Your task to perform on an android device: show emergency info Image 0: 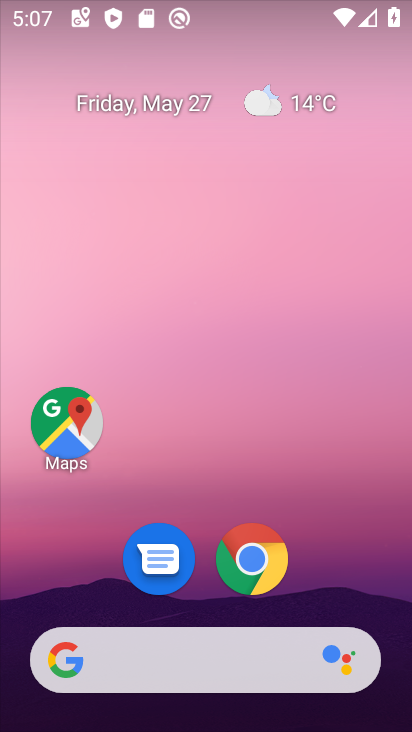
Step 0: drag from (226, 485) to (244, 114)
Your task to perform on an android device: show emergency info Image 1: 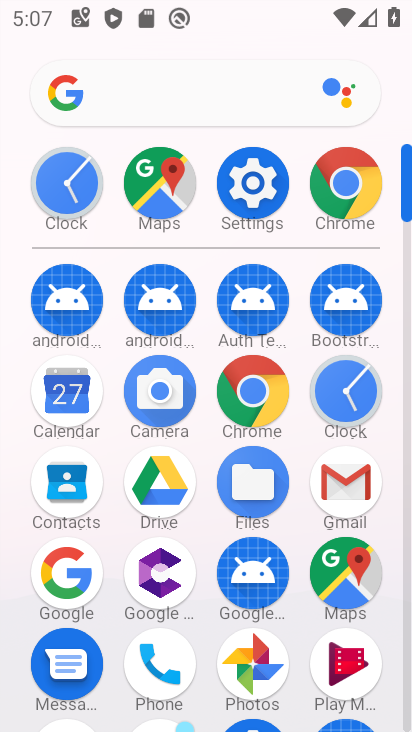
Step 1: click (257, 178)
Your task to perform on an android device: show emergency info Image 2: 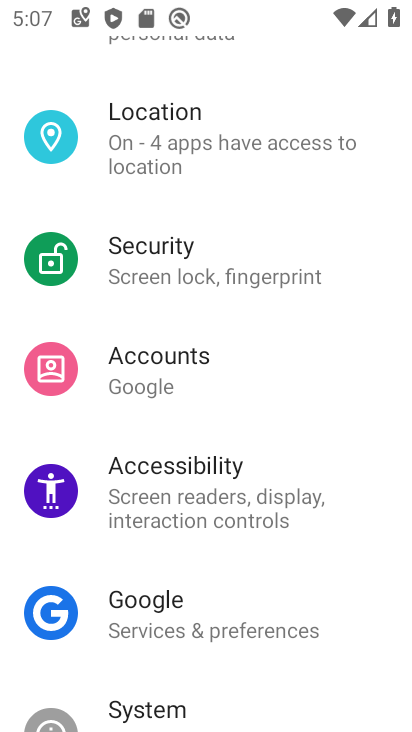
Step 2: drag from (211, 550) to (237, 63)
Your task to perform on an android device: show emergency info Image 3: 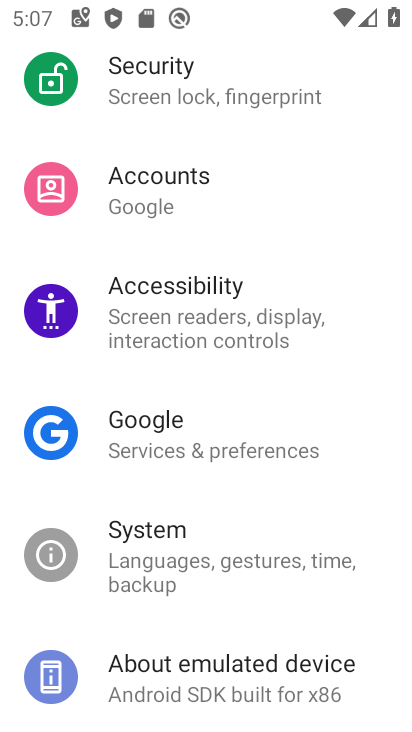
Step 3: click (178, 672)
Your task to perform on an android device: show emergency info Image 4: 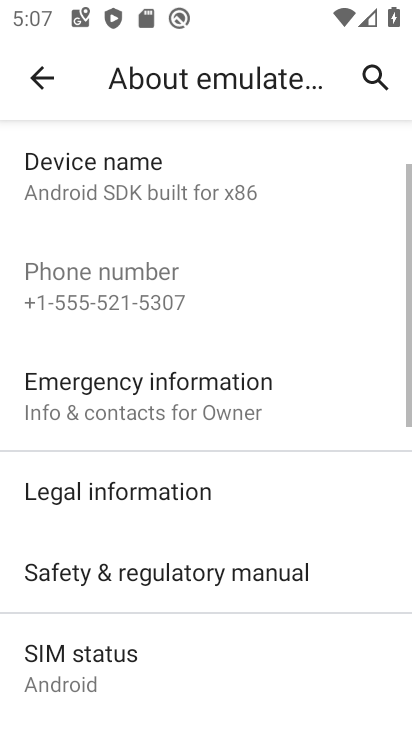
Step 4: click (124, 396)
Your task to perform on an android device: show emergency info Image 5: 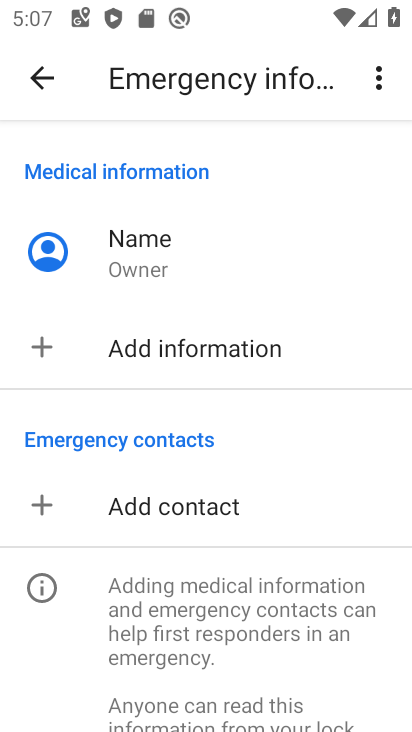
Step 5: task complete